Your task to perform on an android device: turn on the 24-hour format for clock Image 0: 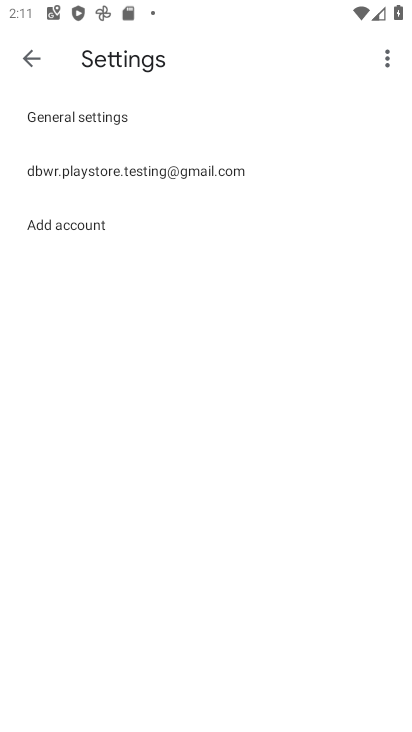
Step 0: press home button
Your task to perform on an android device: turn on the 24-hour format for clock Image 1: 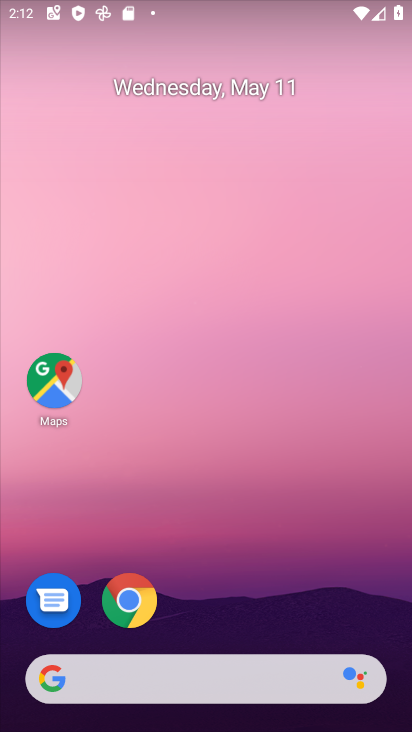
Step 1: drag from (209, 728) to (233, 26)
Your task to perform on an android device: turn on the 24-hour format for clock Image 2: 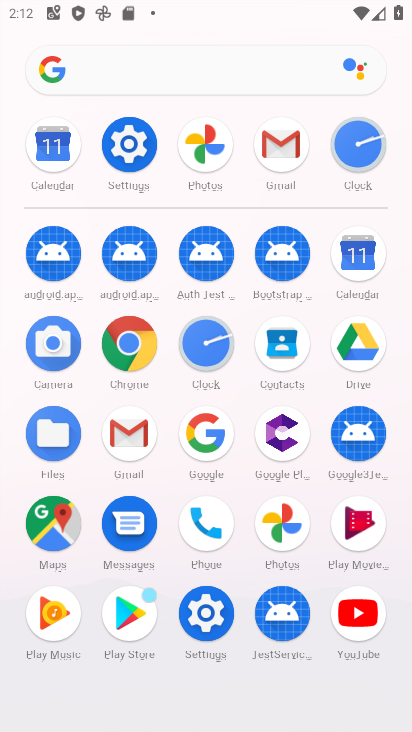
Step 2: click (362, 148)
Your task to perform on an android device: turn on the 24-hour format for clock Image 3: 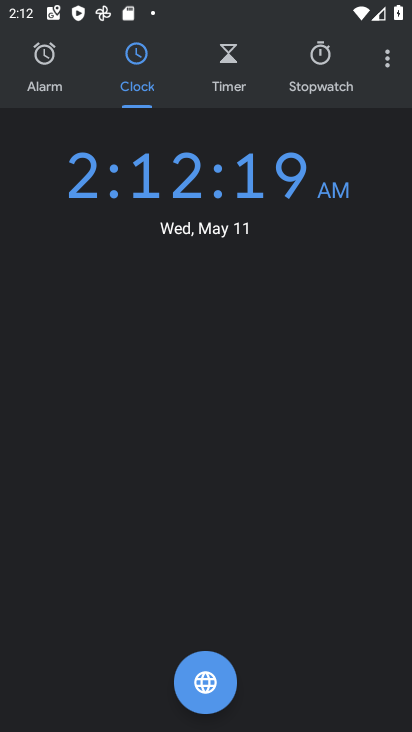
Step 3: click (377, 64)
Your task to perform on an android device: turn on the 24-hour format for clock Image 4: 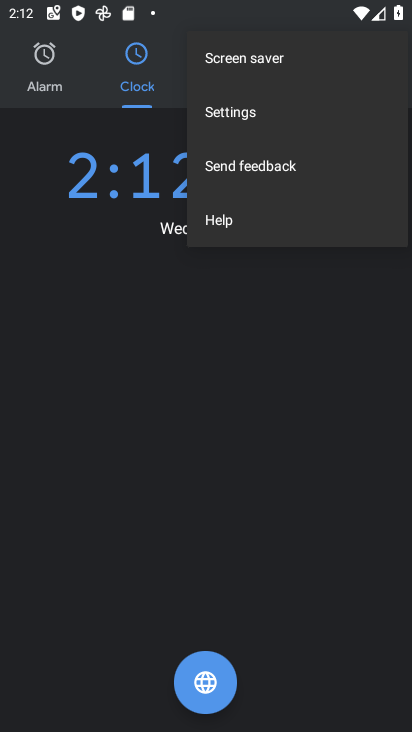
Step 4: click (234, 117)
Your task to perform on an android device: turn on the 24-hour format for clock Image 5: 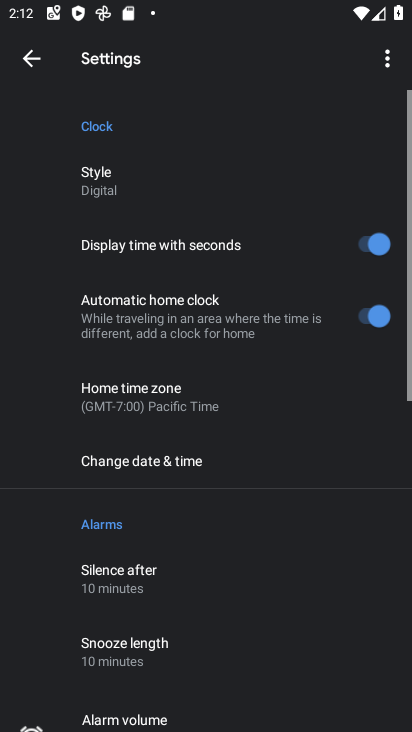
Step 5: click (182, 460)
Your task to perform on an android device: turn on the 24-hour format for clock Image 6: 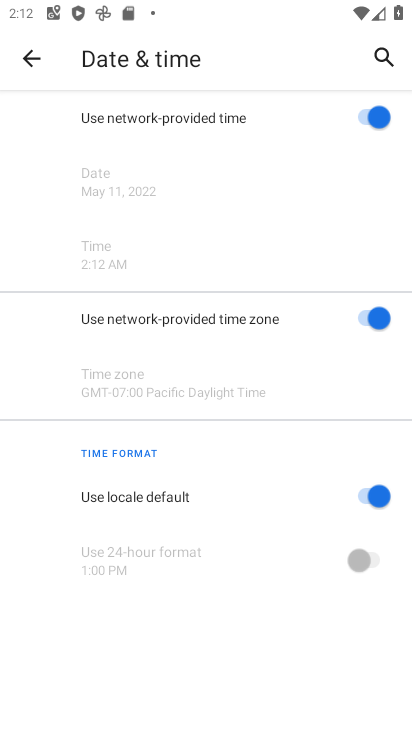
Step 6: click (380, 492)
Your task to perform on an android device: turn on the 24-hour format for clock Image 7: 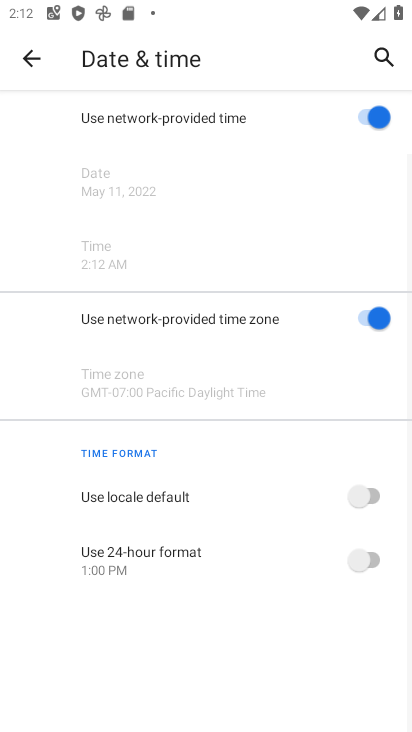
Step 7: click (362, 563)
Your task to perform on an android device: turn on the 24-hour format for clock Image 8: 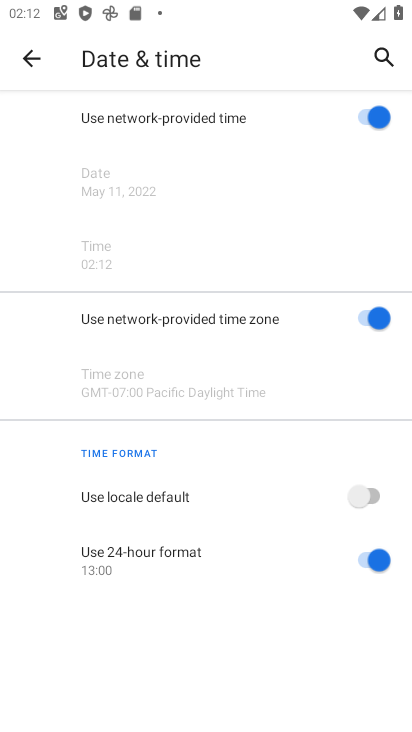
Step 8: task complete